Your task to perform on an android device: Open my contact list Image 0: 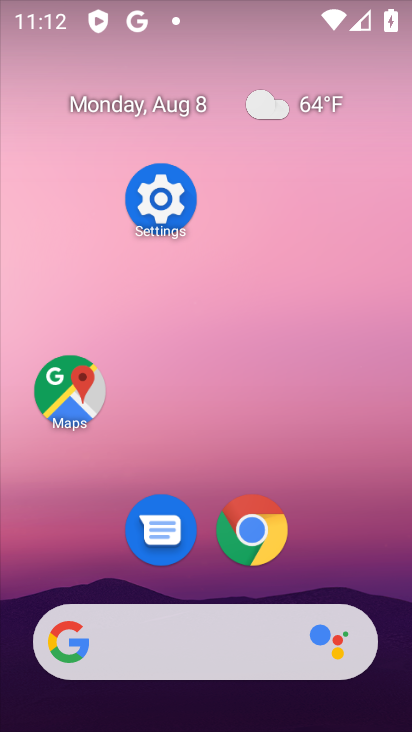
Step 0: drag from (230, 685) to (189, 234)
Your task to perform on an android device: Open my contact list Image 1: 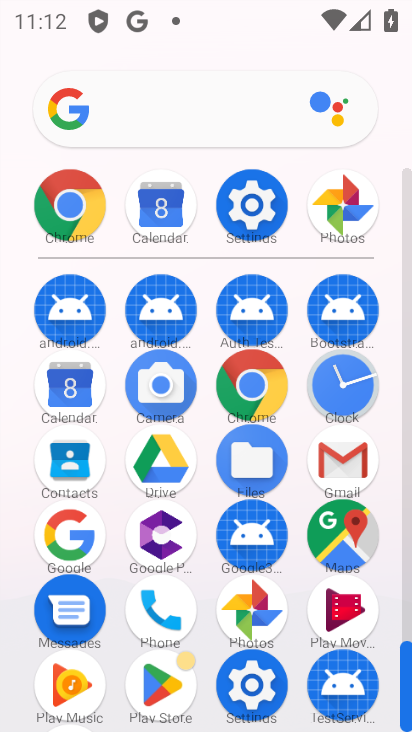
Step 1: click (69, 465)
Your task to perform on an android device: Open my contact list Image 2: 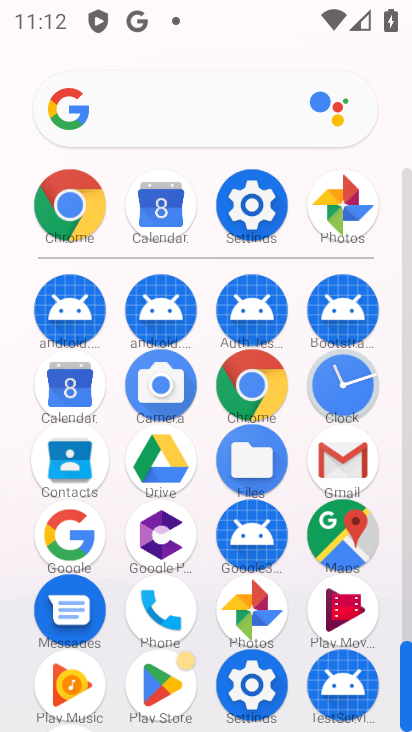
Step 2: click (69, 466)
Your task to perform on an android device: Open my contact list Image 3: 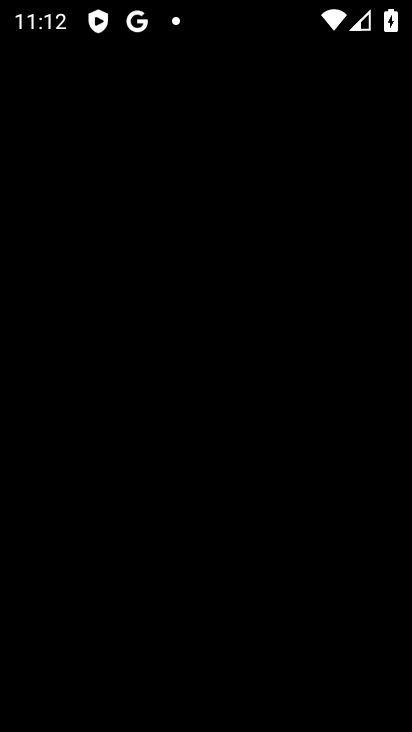
Step 3: click (76, 463)
Your task to perform on an android device: Open my contact list Image 4: 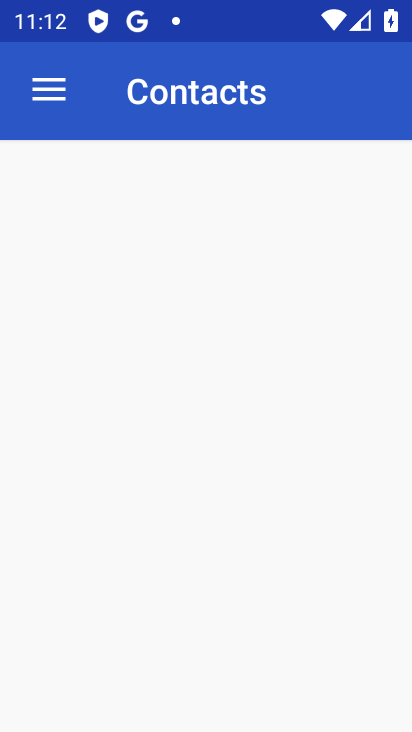
Step 4: click (78, 463)
Your task to perform on an android device: Open my contact list Image 5: 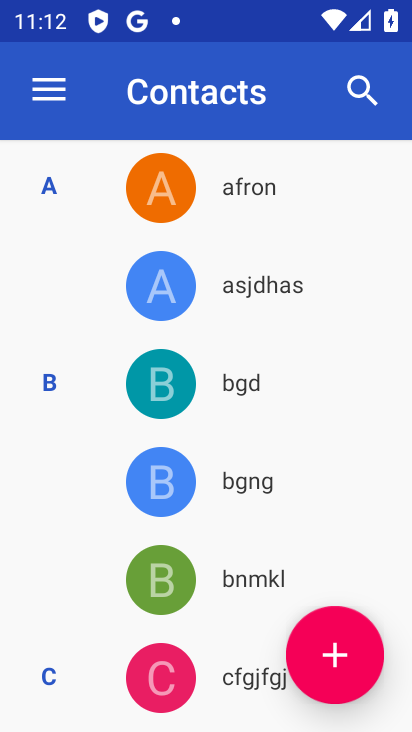
Step 5: click (80, 465)
Your task to perform on an android device: Open my contact list Image 6: 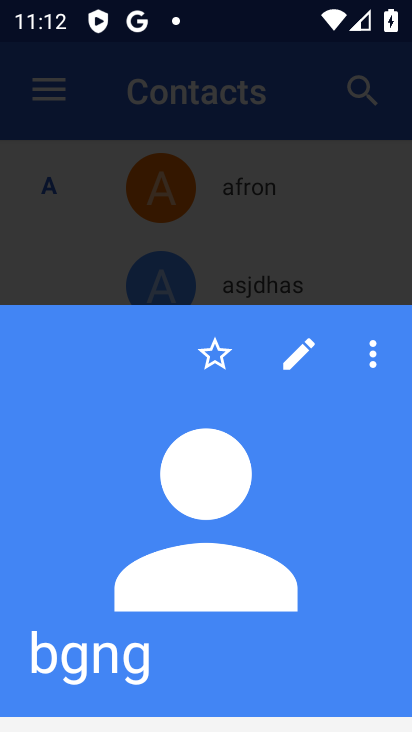
Step 6: click (86, 244)
Your task to perform on an android device: Open my contact list Image 7: 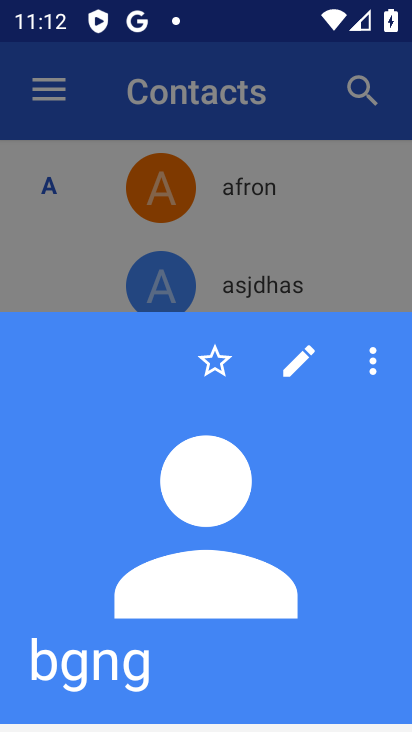
Step 7: click (87, 242)
Your task to perform on an android device: Open my contact list Image 8: 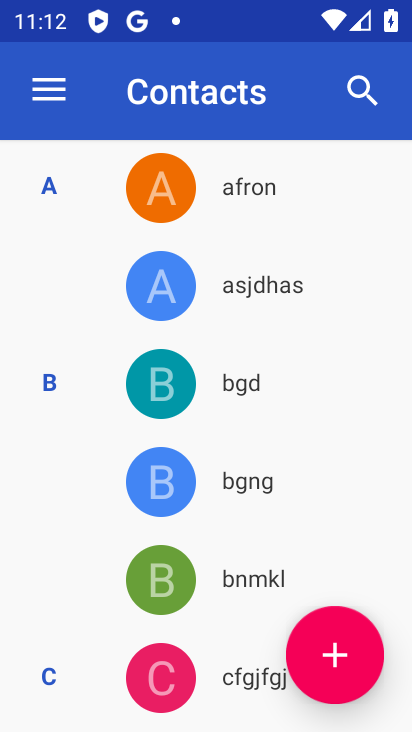
Step 8: click (87, 242)
Your task to perform on an android device: Open my contact list Image 9: 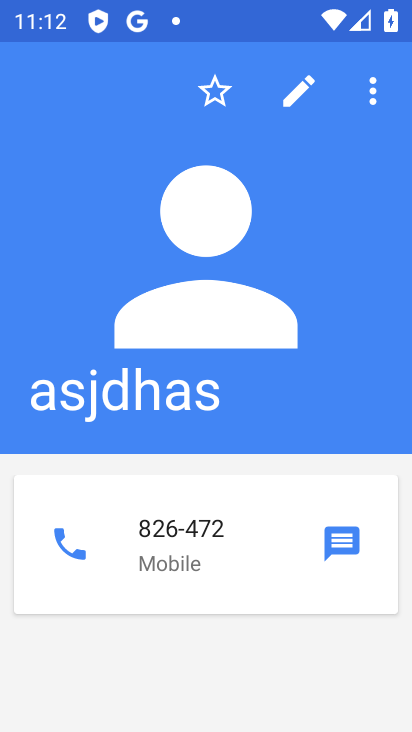
Step 9: task complete